Your task to perform on an android device: manage bookmarks in the chrome app Image 0: 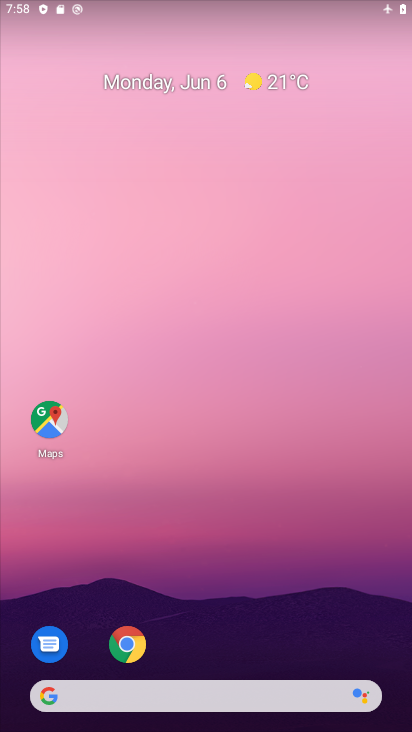
Step 0: click (113, 637)
Your task to perform on an android device: manage bookmarks in the chrome app Image 1: 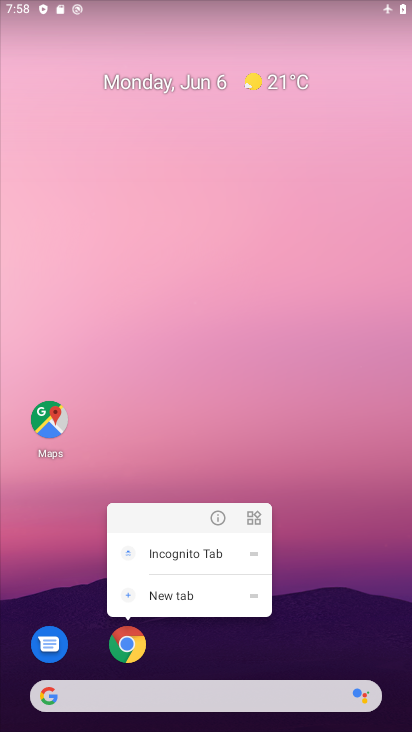
Step 1: click (138, 645)
Your task to perform on an android device: manage bookmarks in the chrome app Image 2: 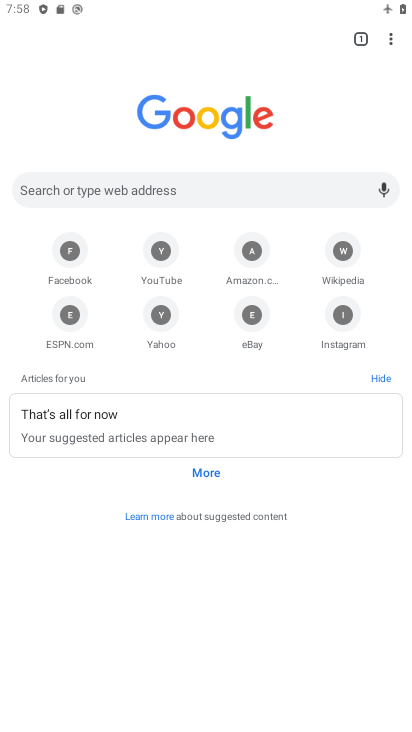
Step 2: task complete